Your task to perform on an android device: turn off smart reply in the gmail app Image 0: 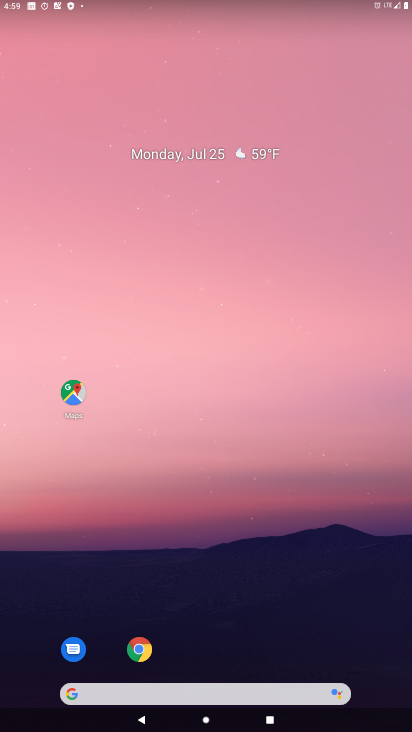
Step 0: drag from (300, 604) to (248, 148)
Your task to perform on an android device: turn off smart reply in the gmail app Image 1: 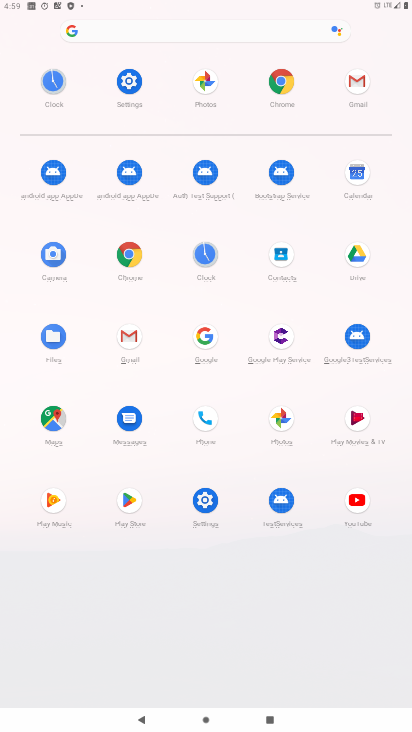
Step 1: click (351, 83)
Your task to perform on an android device: turn off smart reply in the gmail app Image 2: 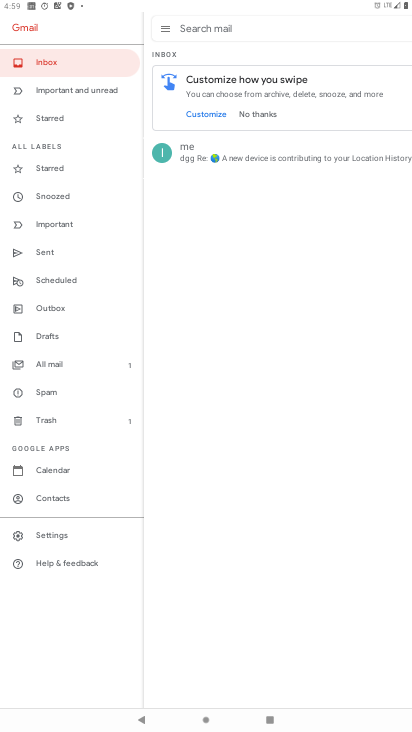
Step 2: click (43, 526)
Your task to perform on an android device: turn off smart reply in the gmail app Image 3: 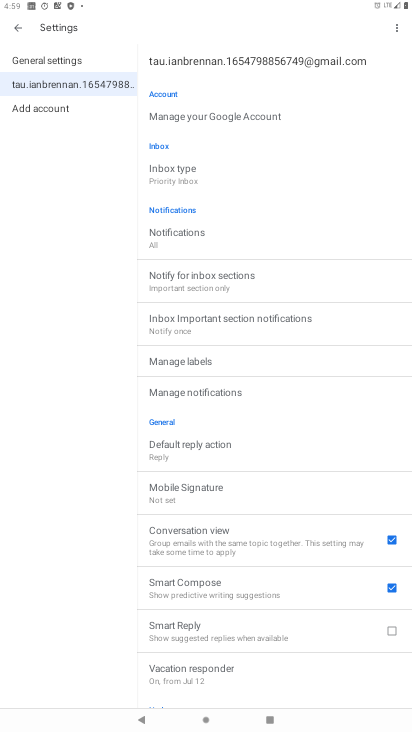
Step 3: task complete